Your task to perform on an android device: add a label to a message in the gmail app Image 0: 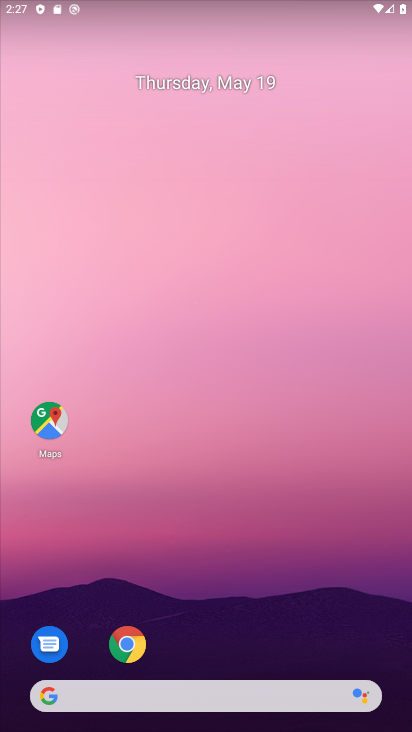
Step 0: drag from (226, 628) to (290, 214)
Your task to perform on an android device: add a label to a message in the gmail app Image 1: 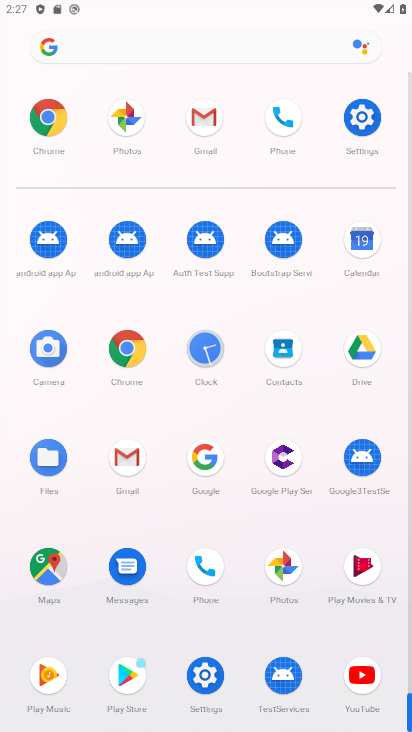
Step 1: click (124, 450)
Your task to perform on an android device: add a label to a message in the gmail app Image 2: 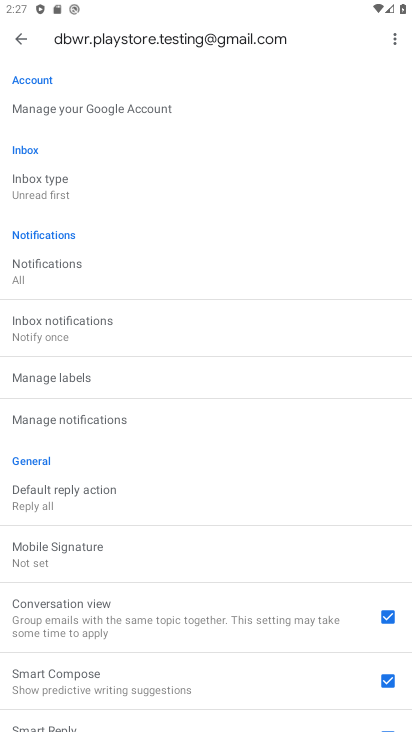
Step 2: click (26, 30)
Your task to perform on an android device: add a label to a message in the gmail app Image 3: 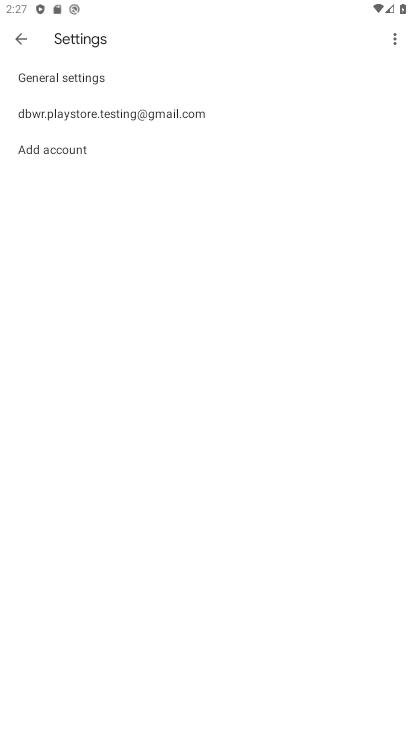
Step 3: click (17, 34)
Your task to perform on an android device: add a label to a message in the gmail app Image 4: 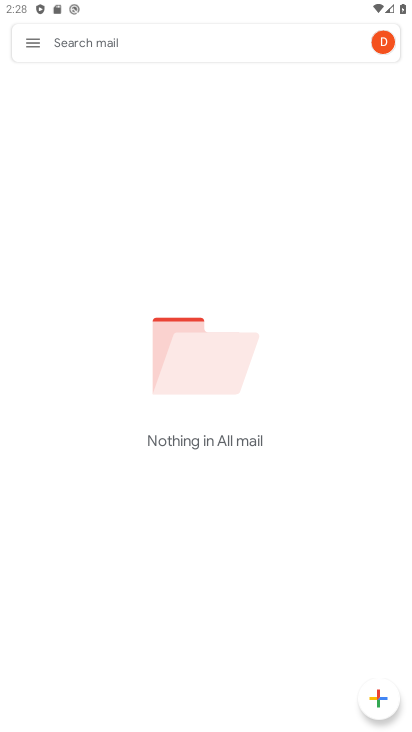
Step 4: task complete